Your task to perform on an android device: Empty the shopping cart on costco.com. Add "razer blackwidow" to the cart on costco.com, then select checkout. Image 0: 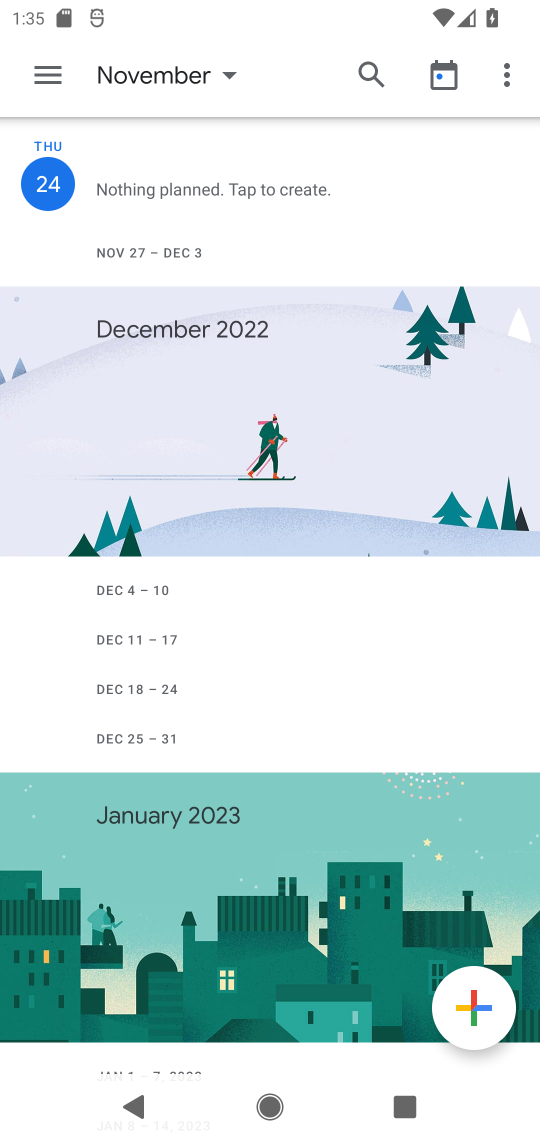
Step 0: press home button
Your task to perform on an android device: Empty the shopping cart on costco.com. Add "razer blackwidow" to the cart on costco.com, then select checkout. Image 1: 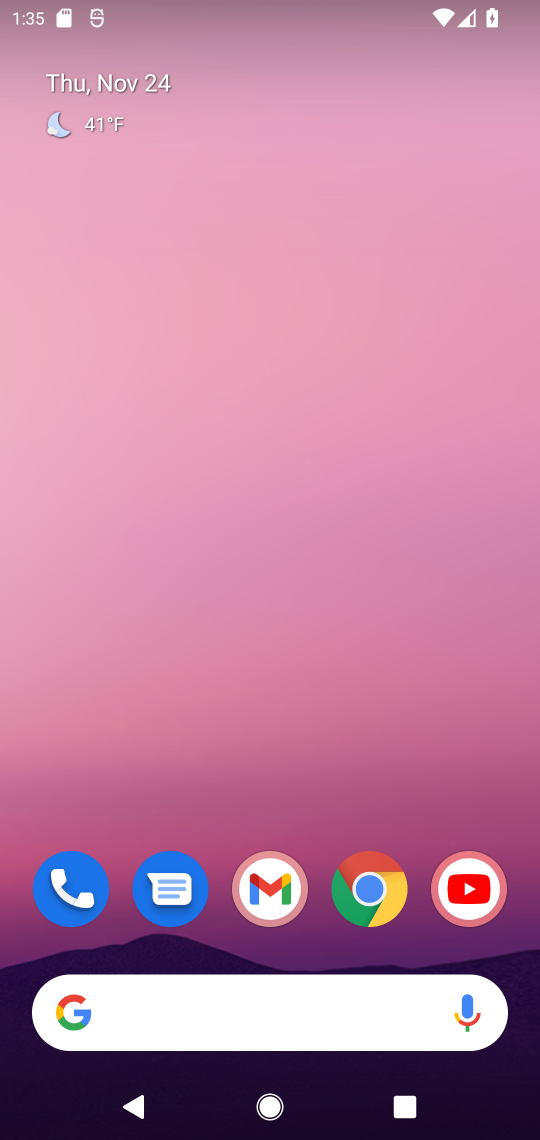
Step 1: click (375, 900)
Your task to perform on an android device: Empty the shopping cart on costco.com. Add "razer blackwidow" to the cart on costco.com, then select checkout. Image 2: 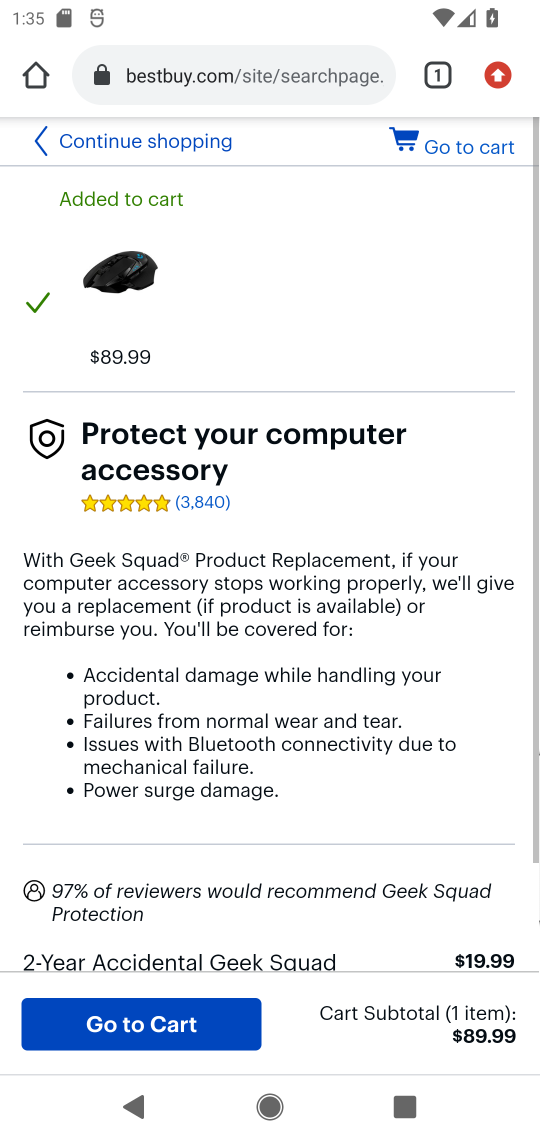
Step 2: click (234, 76)
Your task to perform on an android device: Empty the shopping cart on costco.com. Add "razer blackwidow" to the cart on costco.com, then select checkout. Image 3: 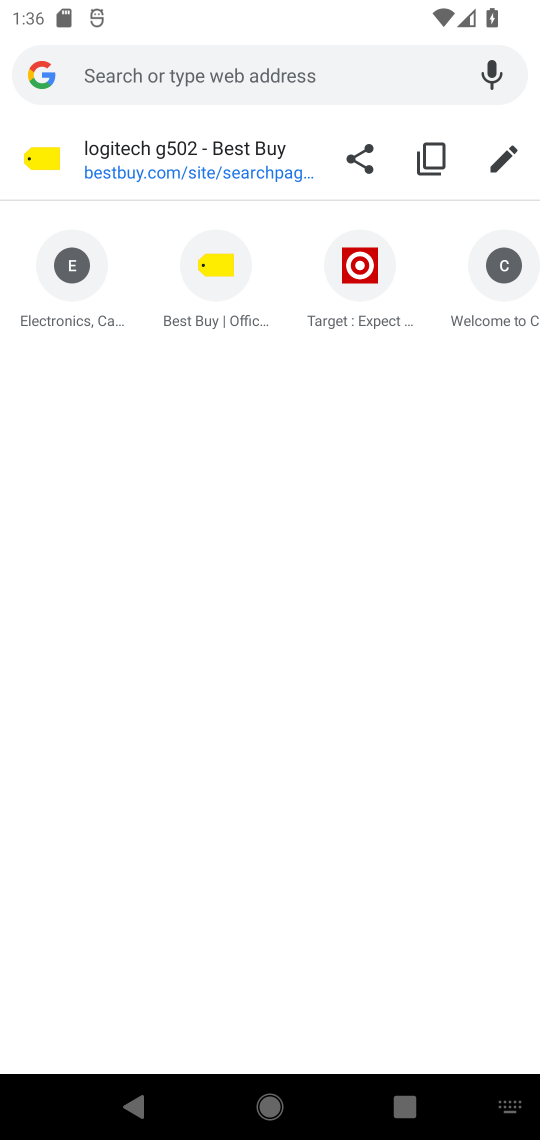
Step 3: type "costco.com"
Your task to perform on an android device: Empty the shopping cart on costco.com. Add "razer blackwidow" to the cart on costco.com, then select checkout. Image 4: 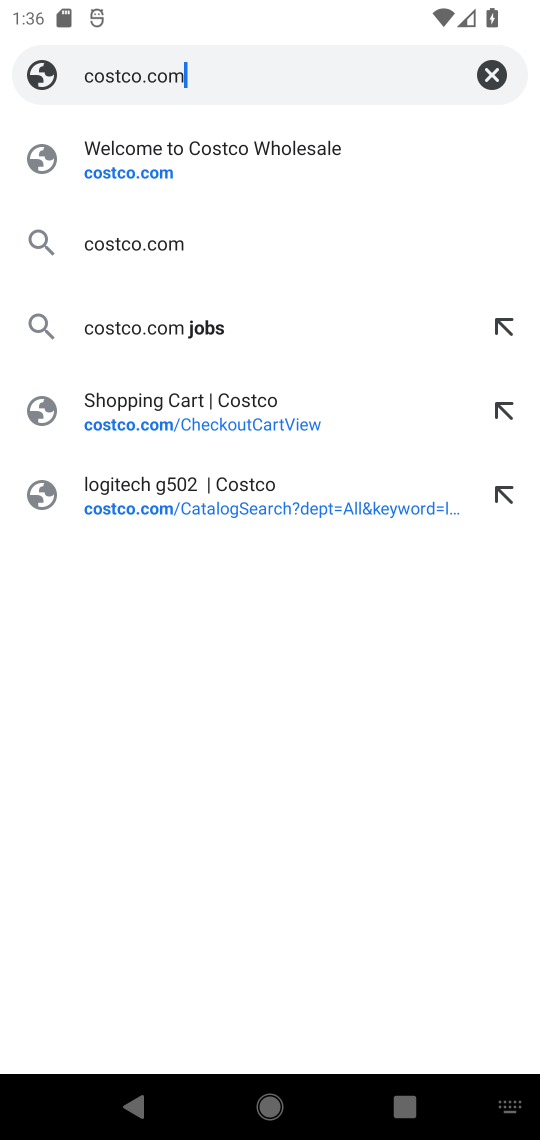
Step 4: click (117, 175)
Your task to perform on an android device: Empty the shopping cart on costco.com. Add "razer blackwidow" to the cart on costco.com, then select checkout. Image 5: 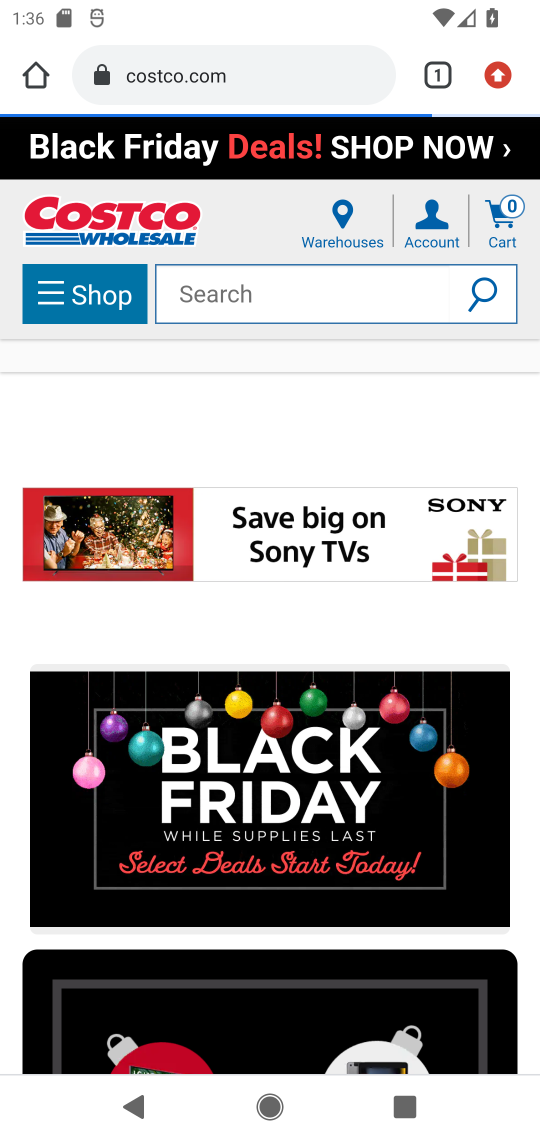
Step 5: click (505, 220)
Your task to perform on an android device: Empty the shopping cart on costco.com. Add "razer blackwidow" to the cart on costco.com, then select checkout. Image 6: 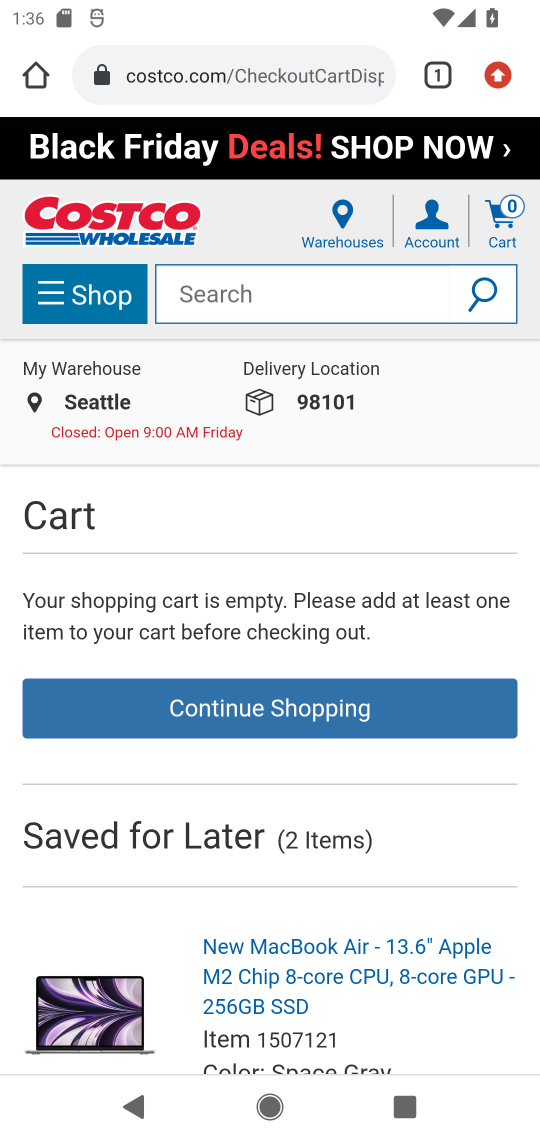
Step 6: click (215, 304)
Your task to perform on an android device: Empty the shopping cart on costco.com. Add "razer blackwidow" to the cart on costco.com, then select checkout. Image 7: 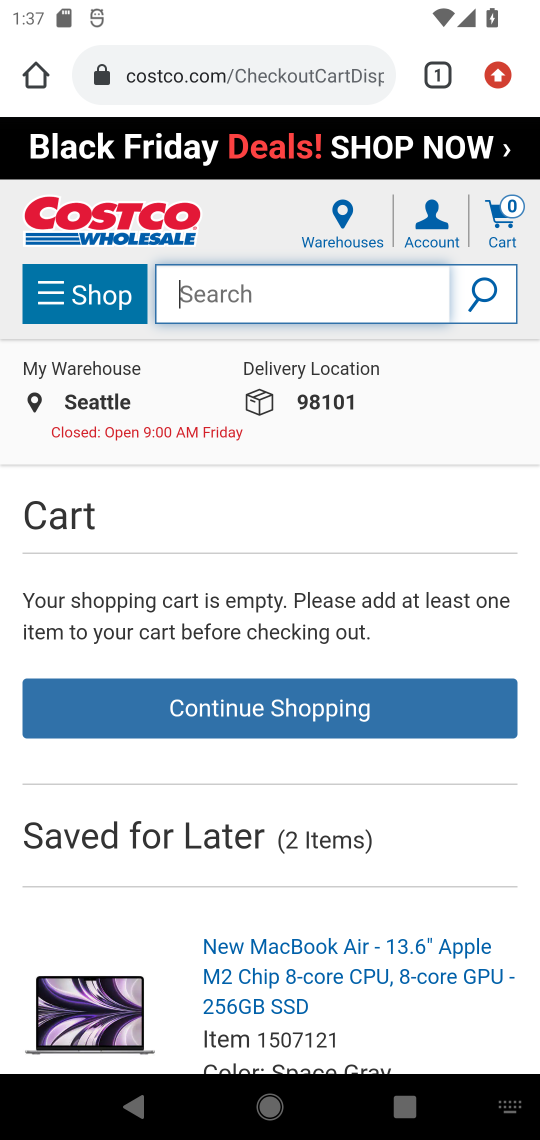
Step 7: type "razer blackwidow"
Your task to perform on an android device: Empty the shopping cart on costco.com. Add "razer blackwidow" to the cart on costco.com, then select checkout. Image 8: 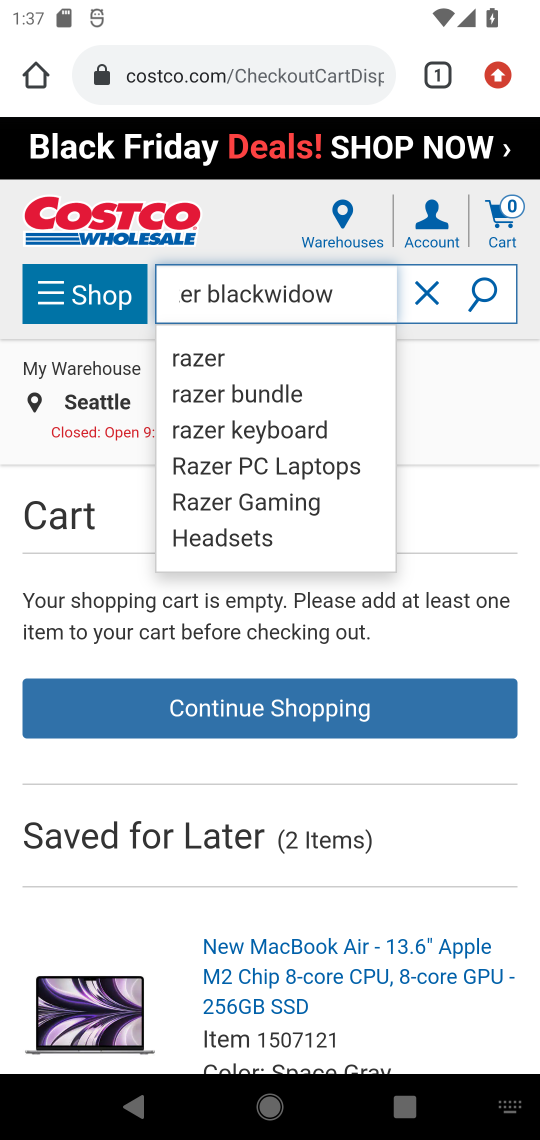
Step 8: click (475, 298)
Your task to perform on an android device: Empty the shopping cart on costco.com. Add "razer blackwidow" to the cart on costco.com, then select checkout. Image 9: 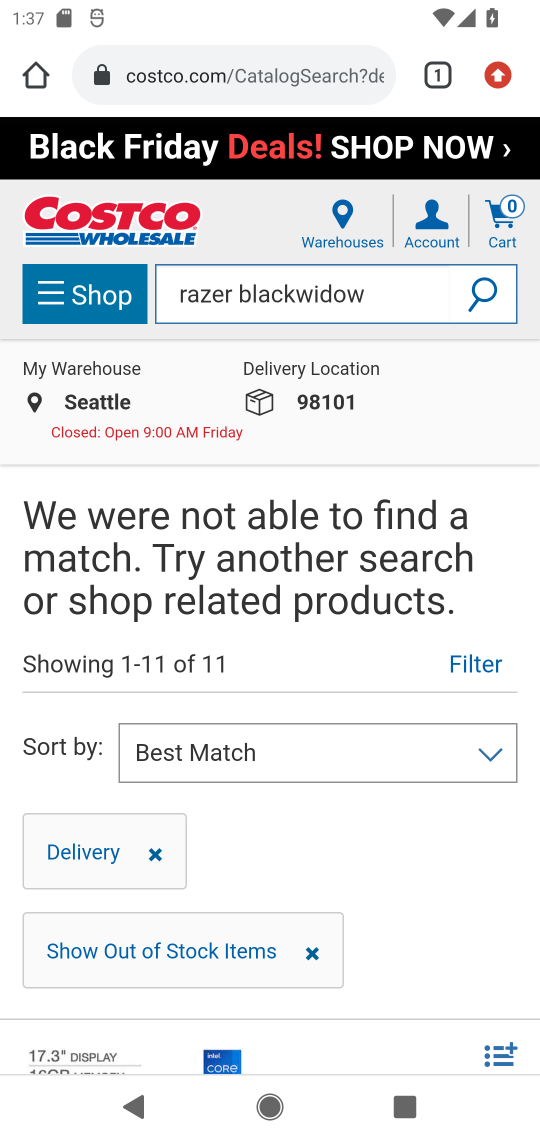
Step 9: task complete